Your task to perform on an android device: find photos in the google photos app Image 0: 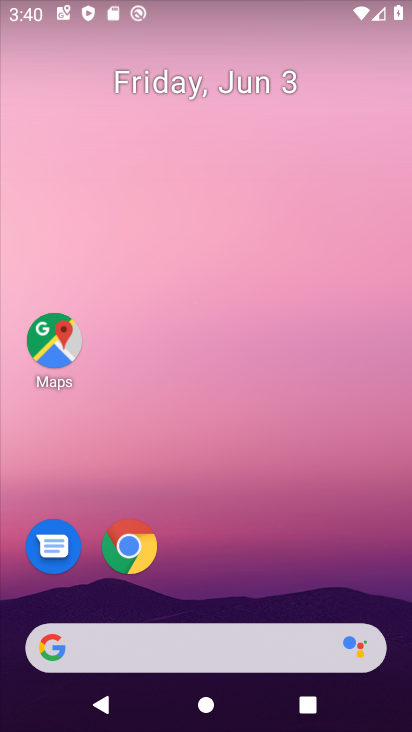
Step 0: drag from (231, 545) to (231, 0)
Your task to perform on an android device: find photos in the google photos app Image 1: 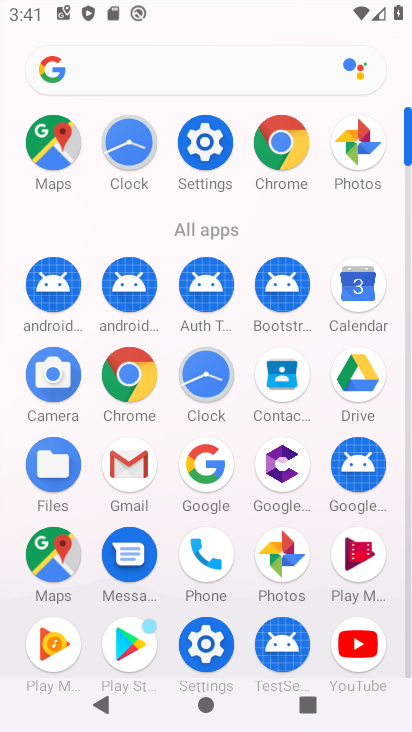
Step 1: click (366, 133)
Your task to perform on an android device: find photos in the google photos app Image 2: 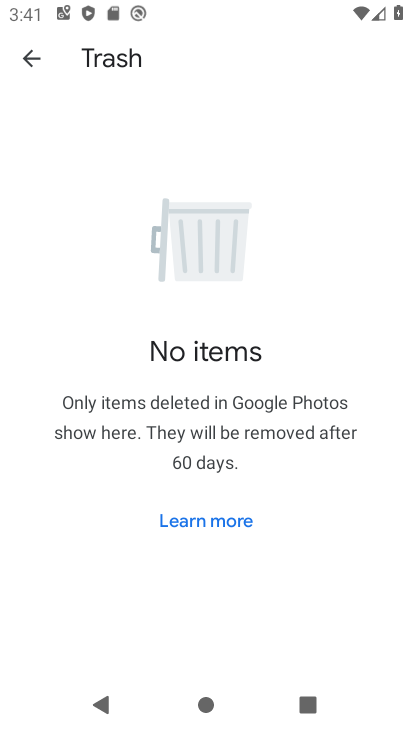
Step 2: click (36, 58)
Your task to perform on an android device: find photos in the google photos app Image 3: 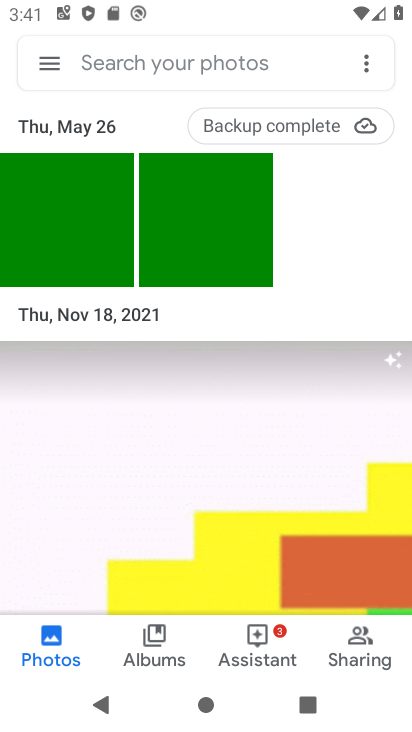
Step 3: task complete